Your task to perform on an android device: empty trash in google photos Image 0: 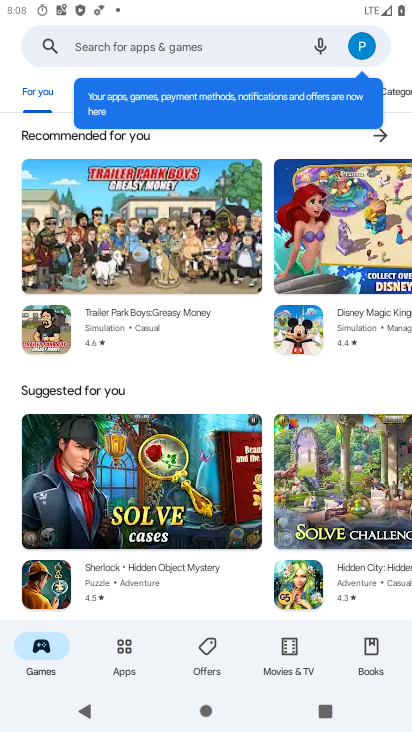
Step 0: press home button
Your task to perform on an android device: empty trash in google photos Image 1: 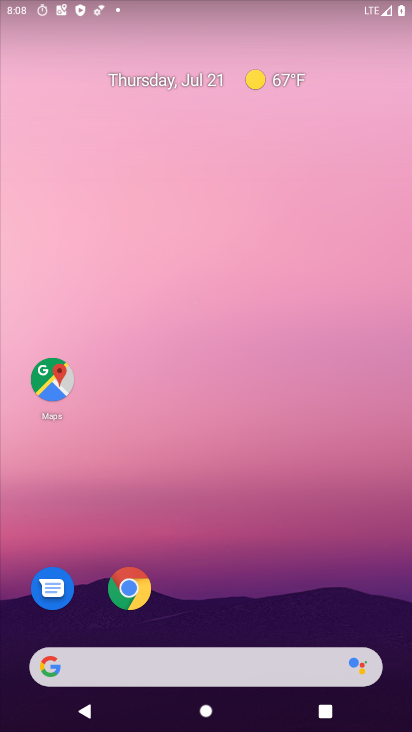
Step 1: drag from (177, 647) to (216, 216)
Your task to perform on an android device: empty trash in google photos Image 2: 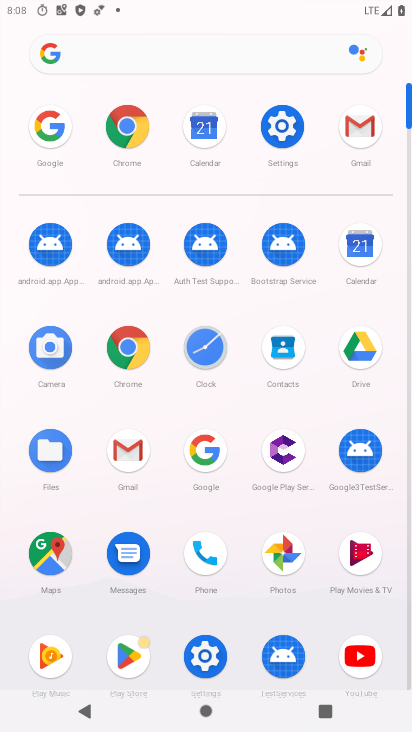
Step 2: click (288, 556)
Your task to perform on an android device: empty trash in google photos Image 3: 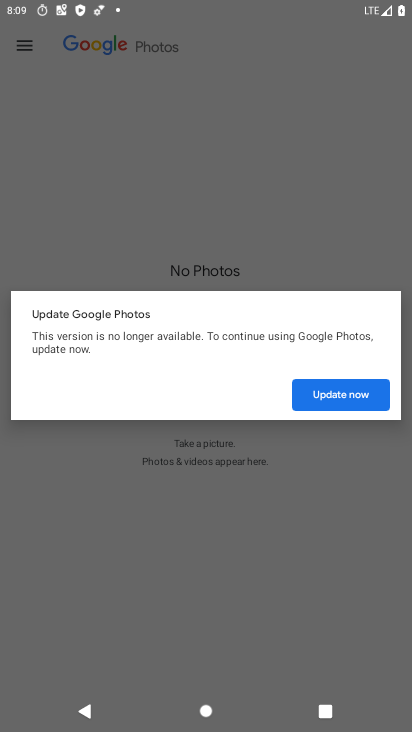
Step 3: click (348, 394)
Your task to perform on an android device: empty trash in google photos Image 4: 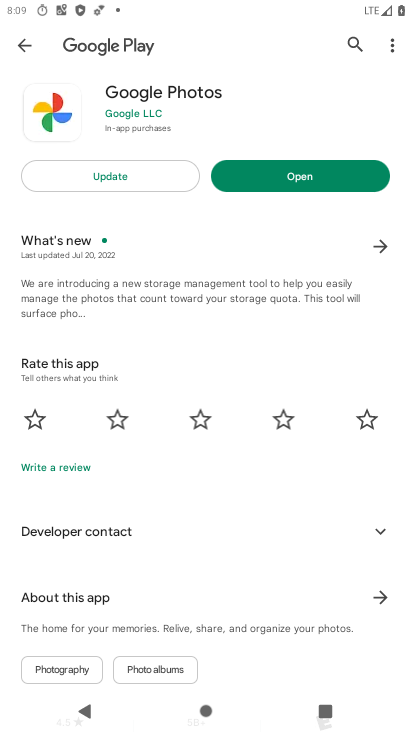
Step 4: click (145, 178)
Your task to perform on an android device: empty trash in google photos Image 5: 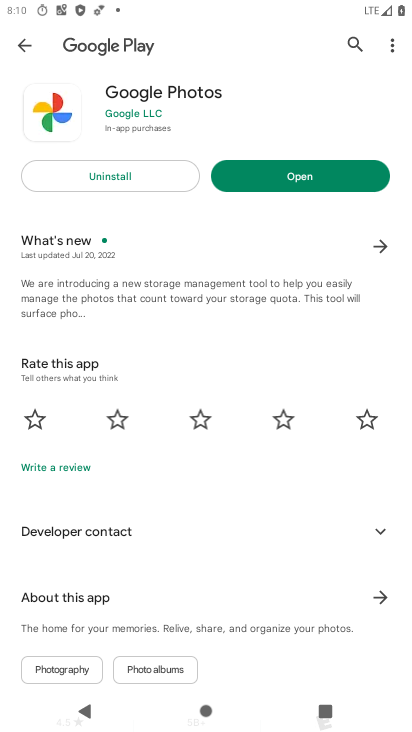
Step 5: click (335, 173)
Your task to perform on an android device: empty trash in google photos Image 6: 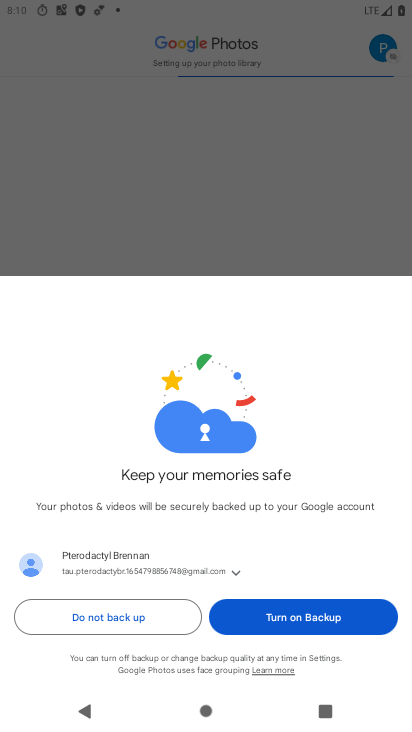
Step 6: click (328, 622)
Your task to perform on an android device: empty trash in google photos Image 7: 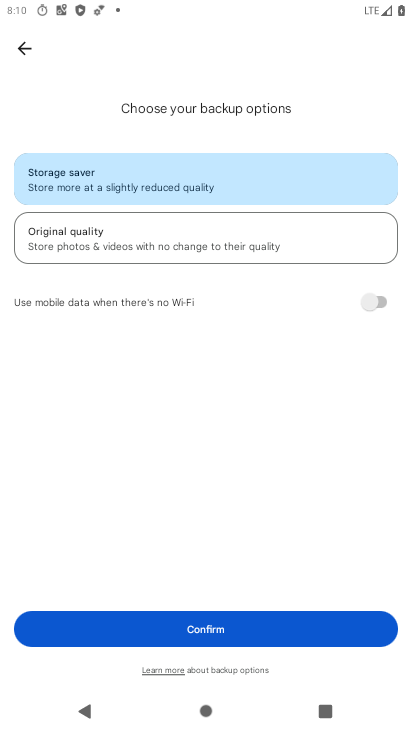
Step 7: click (144, 630)
Your task to perform on an android device: empty trash in google photos Image 8: 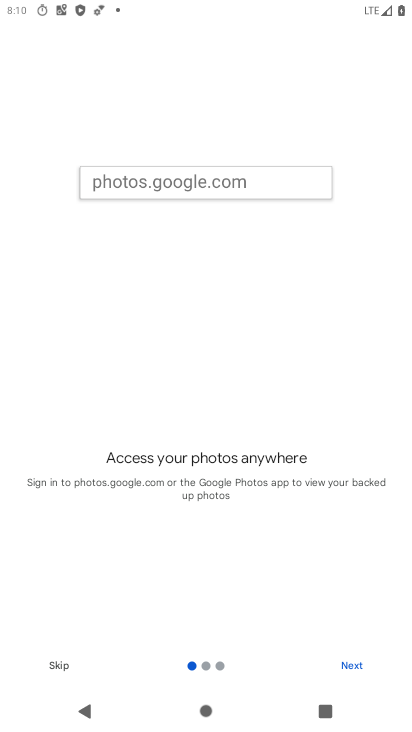
Step 8: click (350, 663)
Your task to perform on an android device: empty trash in google photos Image 9: 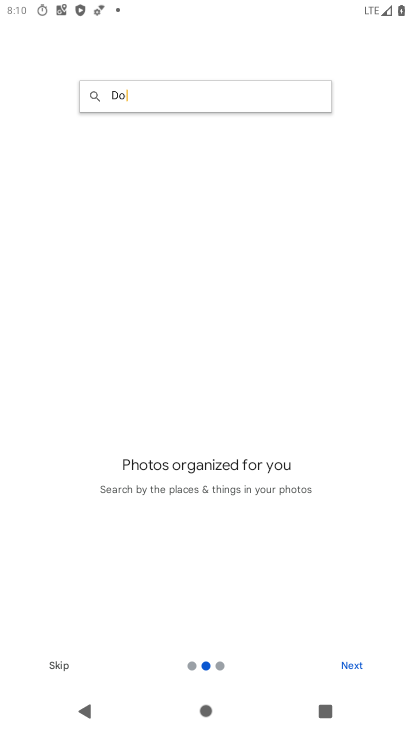
Step 9: click (350, 663)
Your task to perform on an android device: empty trash in google photos Image 10: 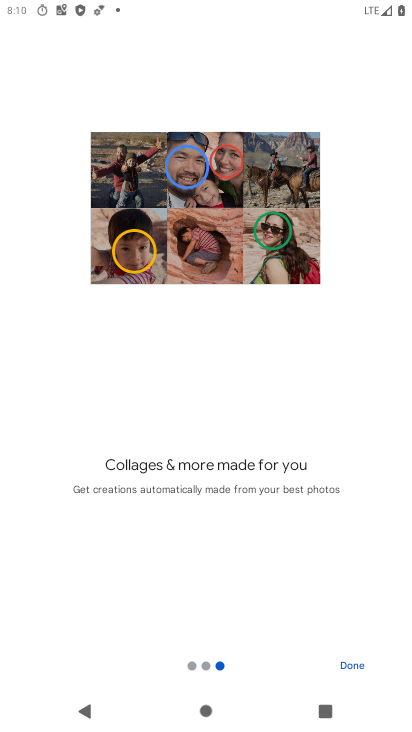
Step 10: click (350, 663)
Your task to perform on an android device: empty trash in google photos Image 11: 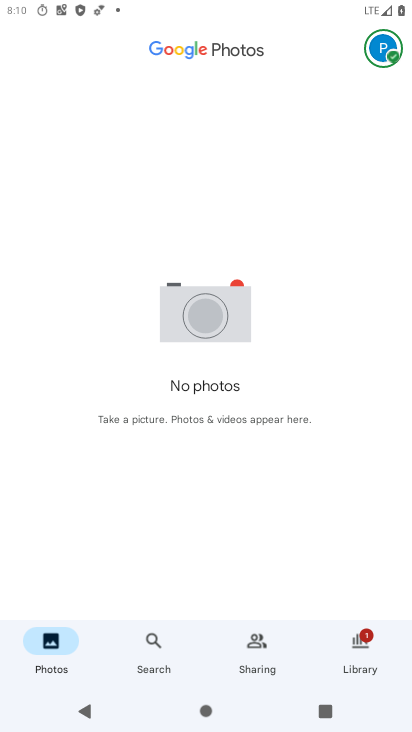
Step 11: click (378, 52)
Your task to perform on an android device: empty trash in google photos Image 12: 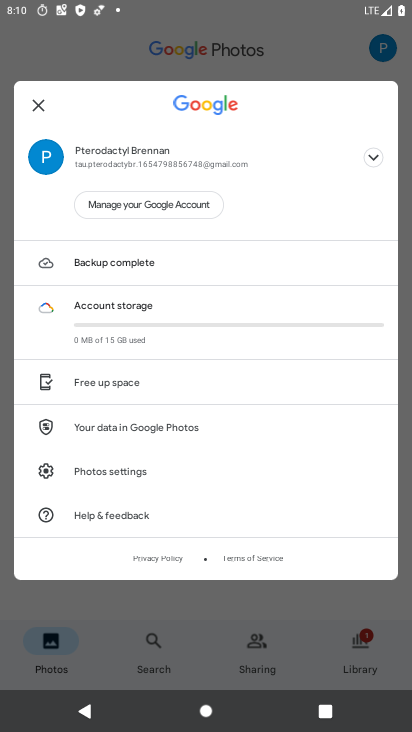
Step 12: click (115, 473)
Your task to perform on an android device: empty trash in google photos Image 13: 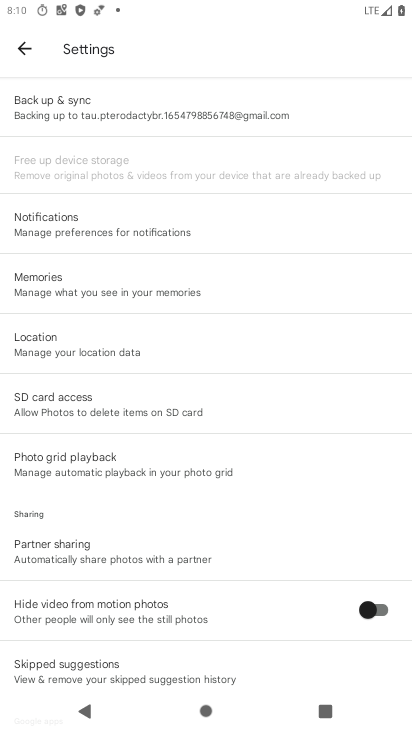
Step 13: task complete